Your task to perform on an android device: Show me recent news Image 0: 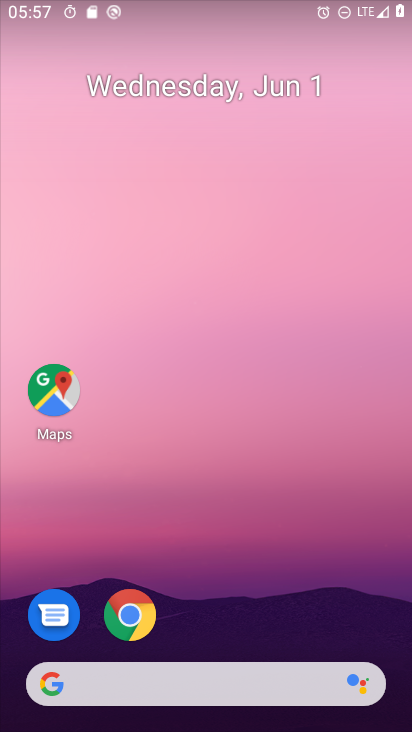
Step 0: drag from (315, 685) to (317, 0)
Your task to perform on an android device: Show me recent news Image 1: 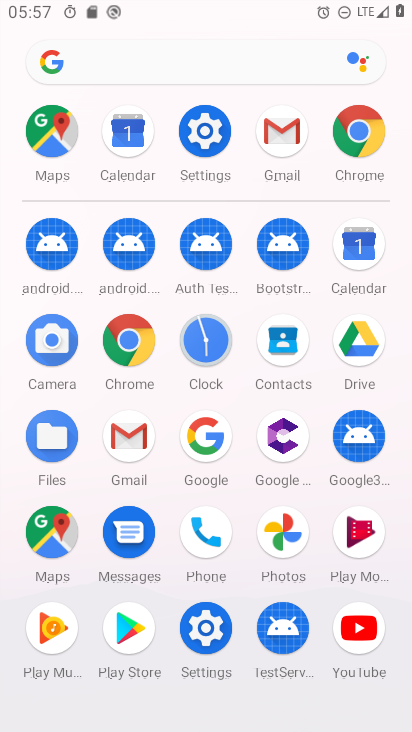
Step 1: click (119, 347)
Your task to perform on an android device: Show me recent news Image 2: 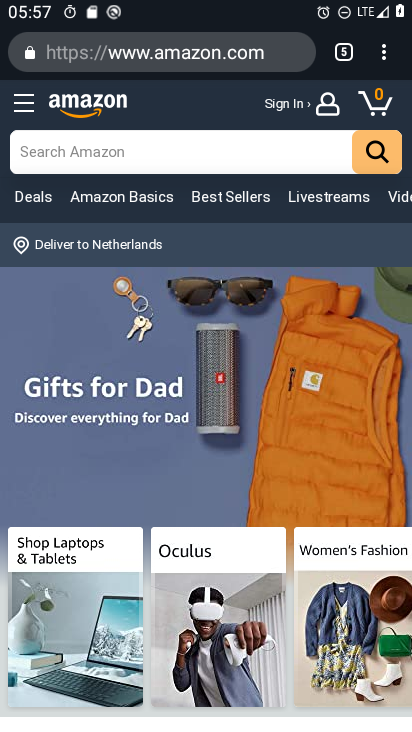
Step 2: click (196, 66)
Your task to perform on an android device: Show me recent news Image 3: 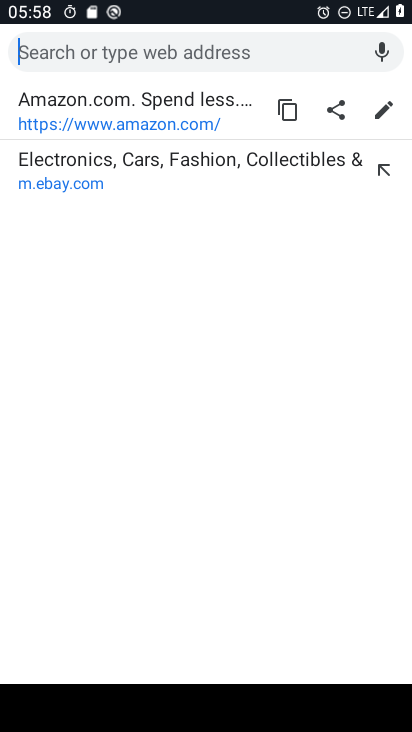
Step 3: type "recent news"
Your task to perform on an android device: Show me recent news Image 4: 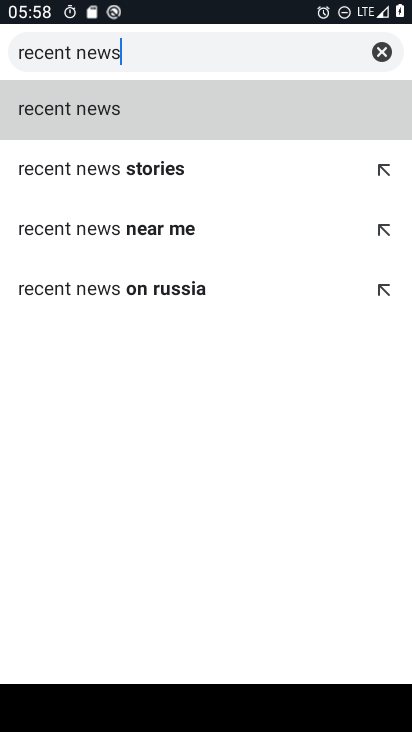
Step 4: click (184, 120)
Your task to perform on an android device: Show me recent news Image 5: 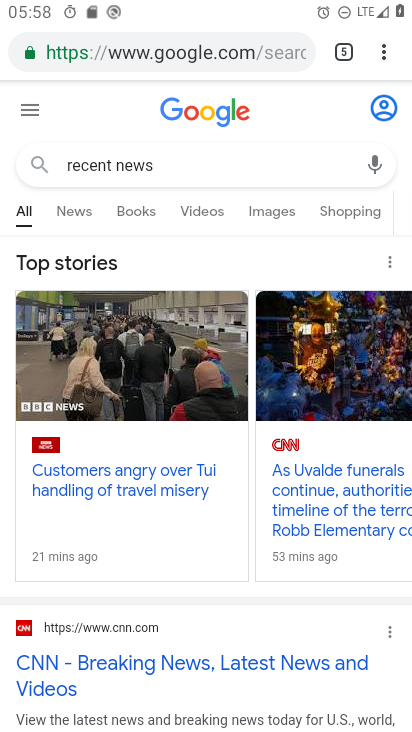
Step 5: task complete